Your task to perform on an android device: uninstall "Flipkart Online Shopping App" Image 0: 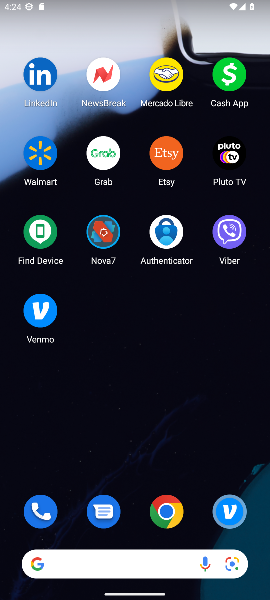
Step 0: drag from (113, 557) to (115, 195)
Your task to perform on an android device: uninstall "Flipkart Online Shopping App" Image 1: 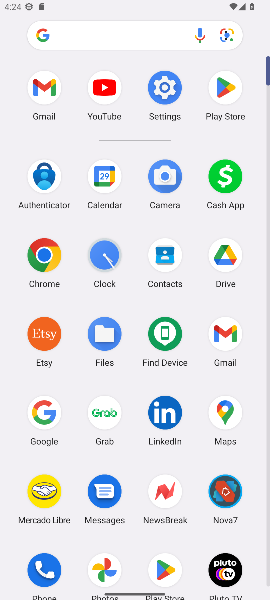
Step 1: click (164, 570)
Your task to perform on an android device: uninstall "Flipkart Online Shopping App" Image 2: 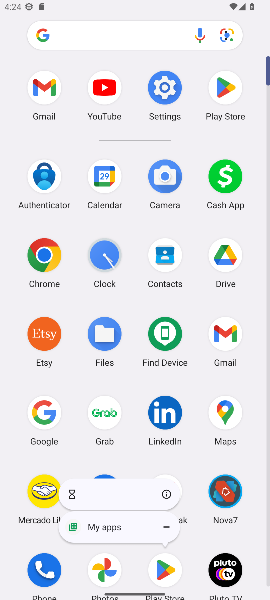
Step 2: click (164, 570)
Your task to perform on an android device: uninstall "Flipkart Online Shopping App" Image 3: 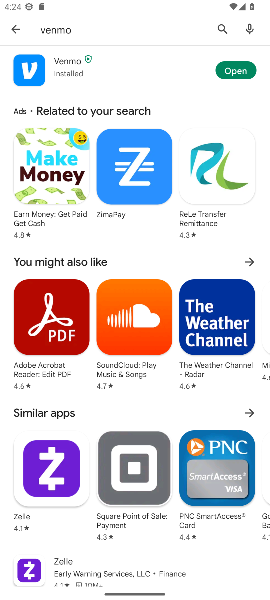
Step 3: click (219, 29)
Your task to perform on an android device: uninstall "Flipkart Online Shopping App" Image 4: 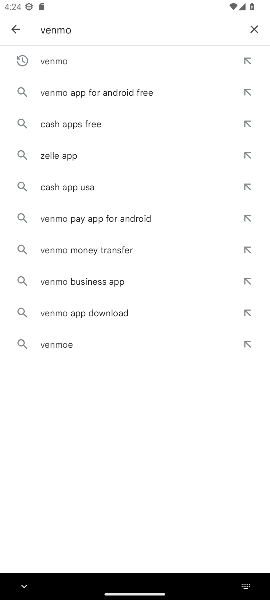
Step 4: click (249, 26)
Your task to perform on an android device: uninstall "Flipkart Online Shopping App" Image 5: 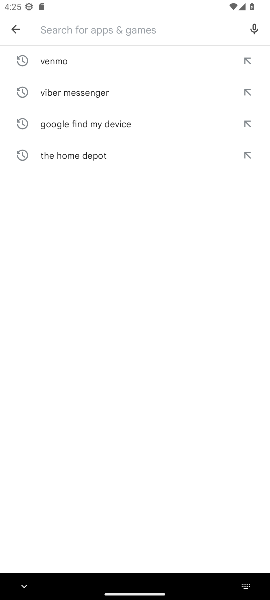
Step 5: type "Flipkart Online Shopping App"
Your task to perform on an android device: uninstall "Flipkart Online Shopping App" Image 6: 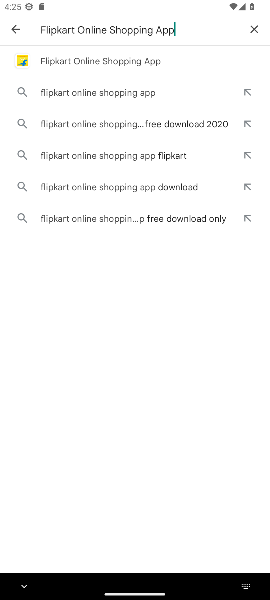
Step 6: click (111, 63)
Your task to perform on an android device: uninstall "Flipkart Online Shopping App" Image 7: 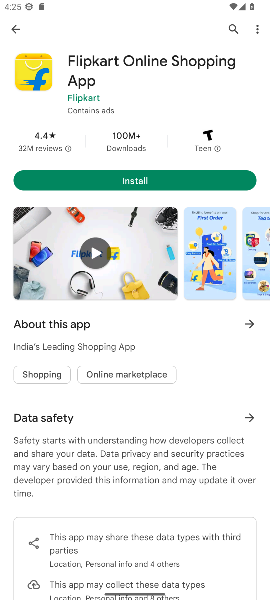
Step 7: task complete